Your task to perform on an android device: see creations saved in the google photos Image 0: 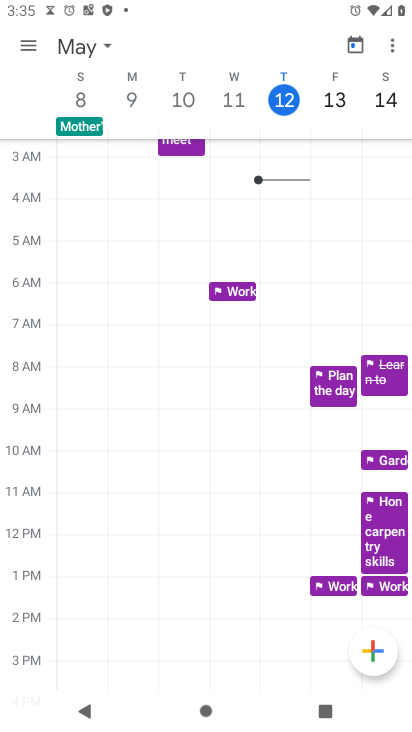
Step 0: press back button
Your task to perform on an android device: see creations saved in the google photos Image 1: 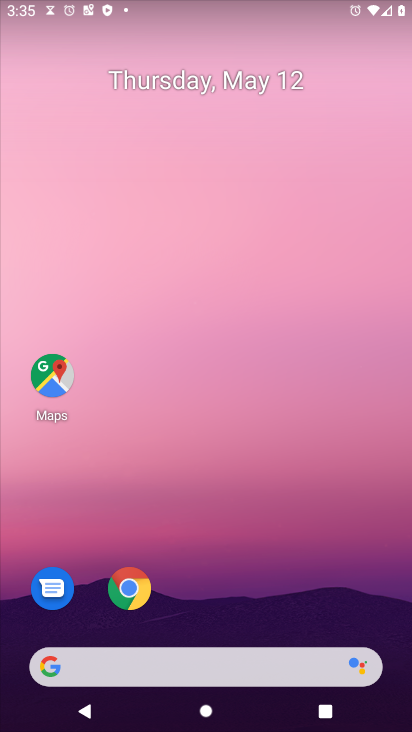
Step 1: drag from (276, 534) to (256, 14)
Your task to perform on an android device: see creations saved in the google photos Image 2: 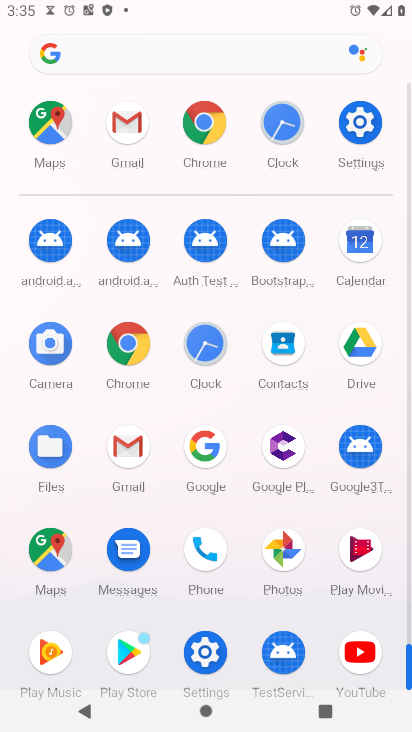
Step 2: drag from (9, 578) to (9, 309)
Your task to perform on an android device: see creations saved in the google photos Image 3: 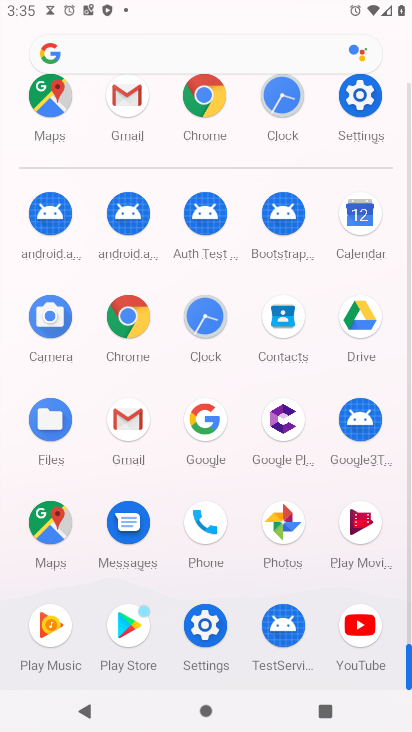
Step 3: click (278, 516)
Your task to perform on an android device: see creations saved in the google photos Image 4: 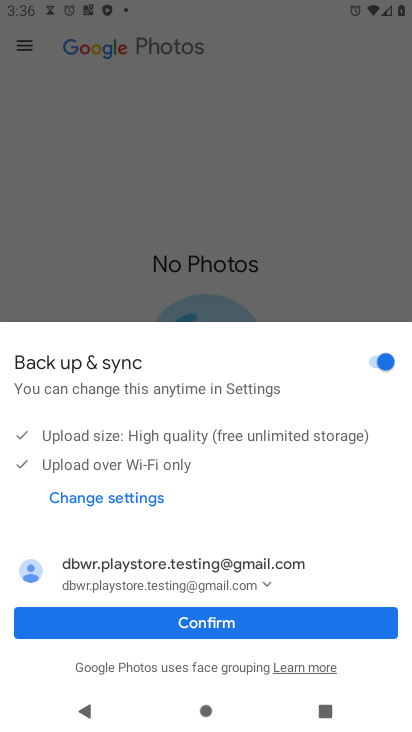
Step 4: click (187, 615)
Your task to perform on an android device: see creations saved in the google photos Image 5: 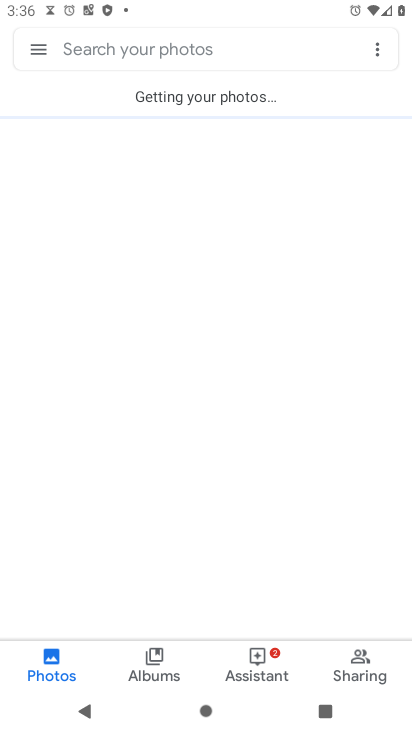
Step 5: task complete